Your task to perform on an android device: turn on priority inbox in the gmail app Image 0: 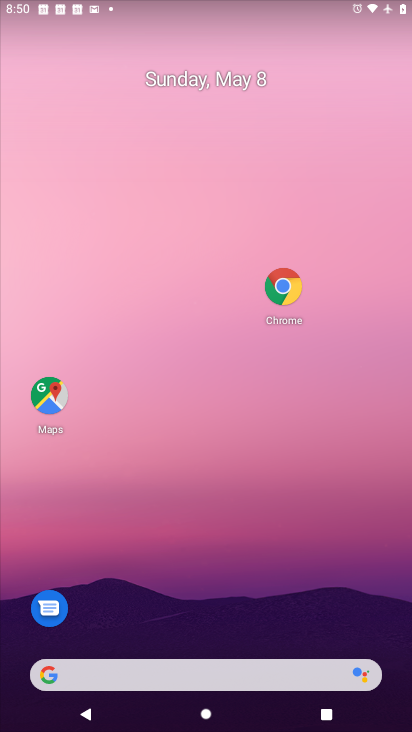
Step 0: drag from (131, 677) to (250, 162)
Your task to perform on an android device: turn on priority inbox in the gmail app Image 1: 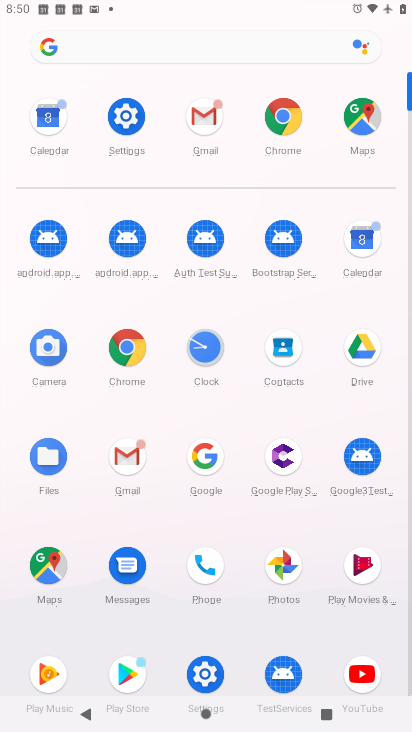
Step 1: click (205, 126)
Your task to perform on an android device: turn on priority inbox in the gmail app Image 2: 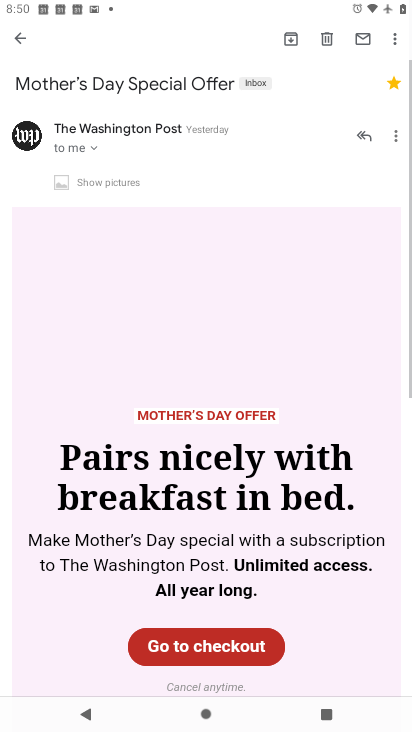
Step 2: click (18, 32)
Your task to perform on an android device: turn on priority inbox in the gmail app Image 3: 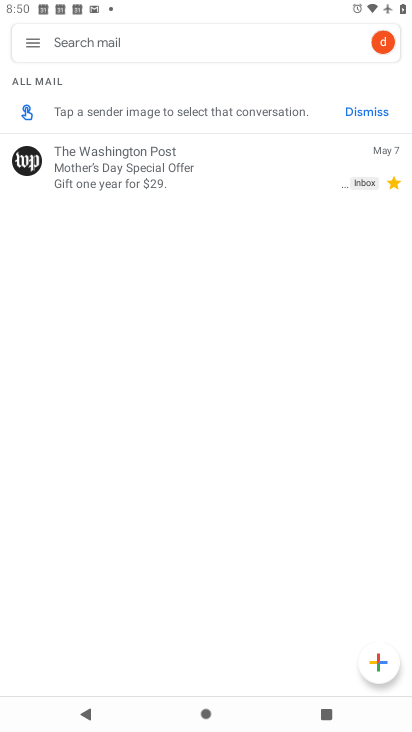
Step 3: click (26, 46)
Your task to perform on an android device: turn on priority inbox in the gmail app Image 4: 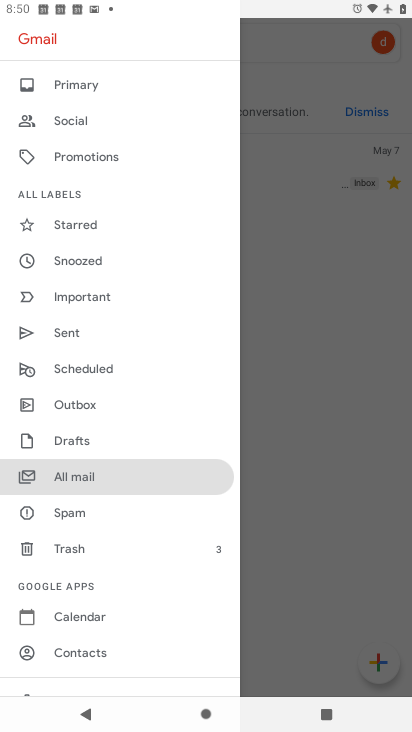
Step 4: drag from (100, 611) to (186, 270)
Your task to perform on an android device: turn on priority inbox in the gmail app Image 5: 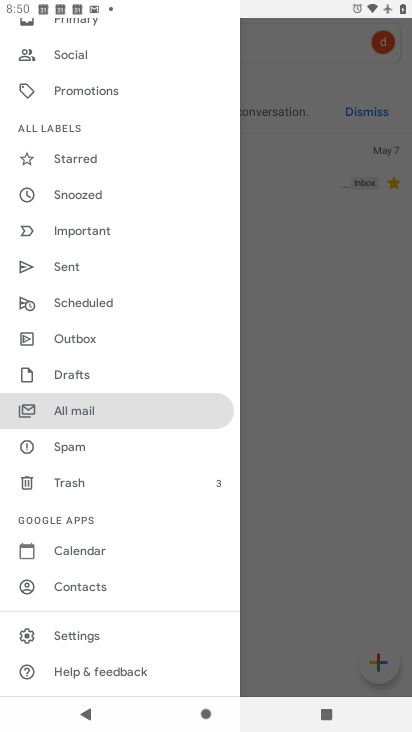
Step 5: click (74, 639)
Your task to perform on an android device: turn on priority inbox in the gmail app Image 6: 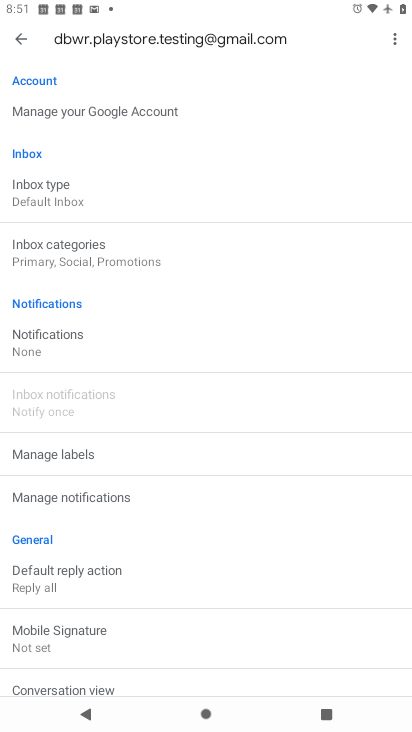
Step 6: click (60, 184)
Your task to perform on an android device: turn on priority inbox in the gmail app Image 7: 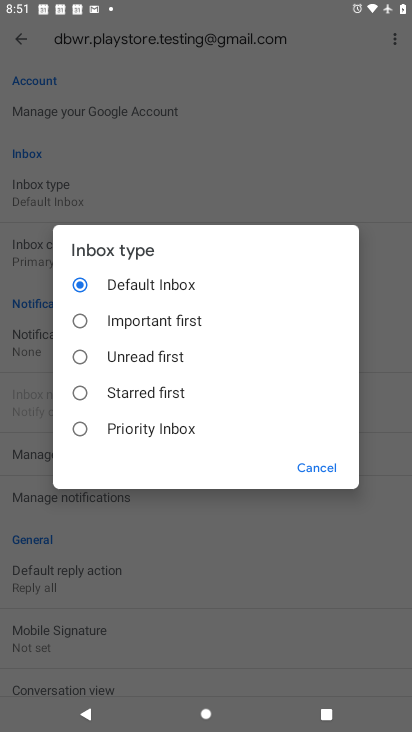
Step 7: click (82, 432)
Your task to perform on an android device: turn on priority inbox in the gmail app Image 8: 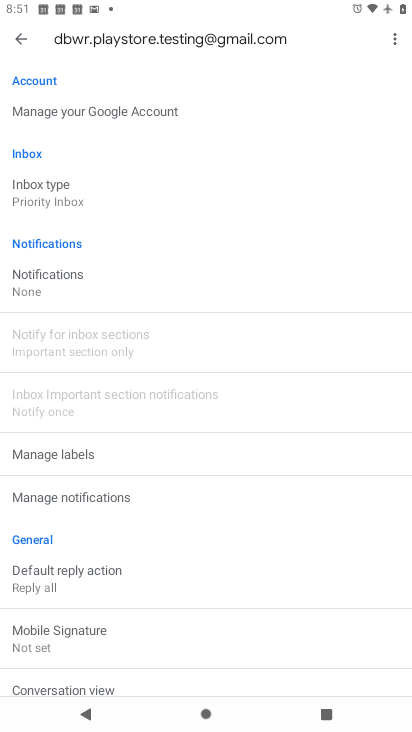
Step 8: task complete